Your task to perform on an android device: delete browsing data in the chrome app Image 0: 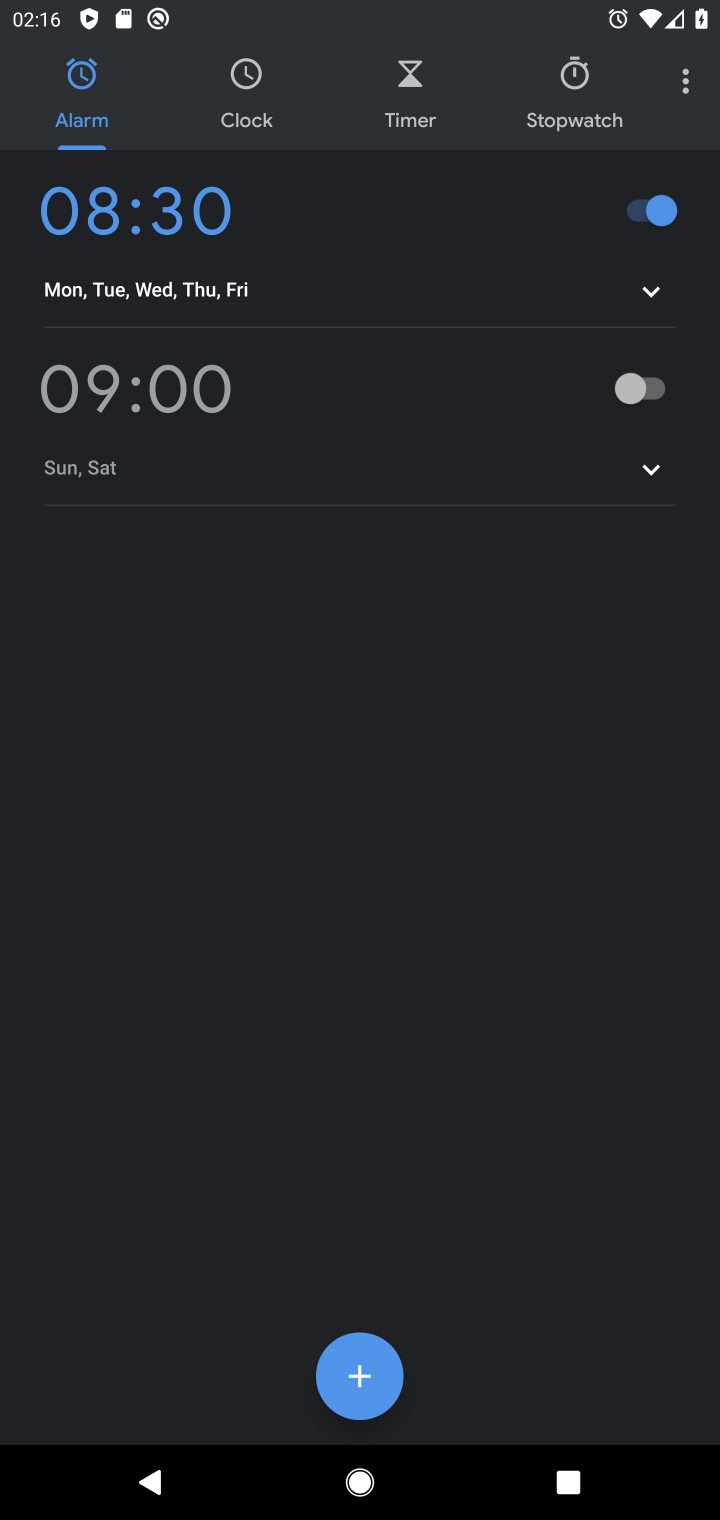
Step 0: press home button
Your task to perform on an android device: delete browsing data in the chrome app Image 1: 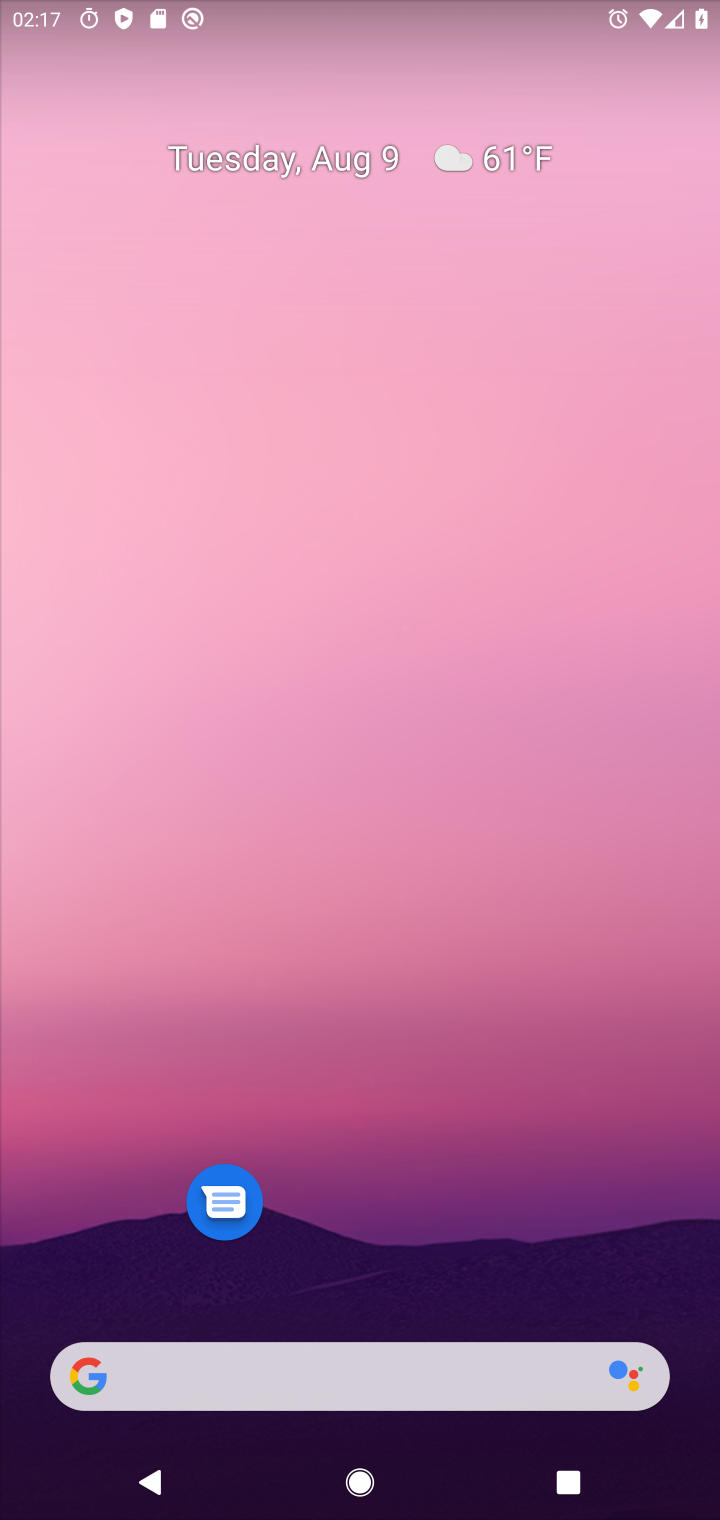
Step 1: drag from (437, 1370) to (474, 300)
Your task to perform on an android device: delete browsing data in the chrome app Image 2: 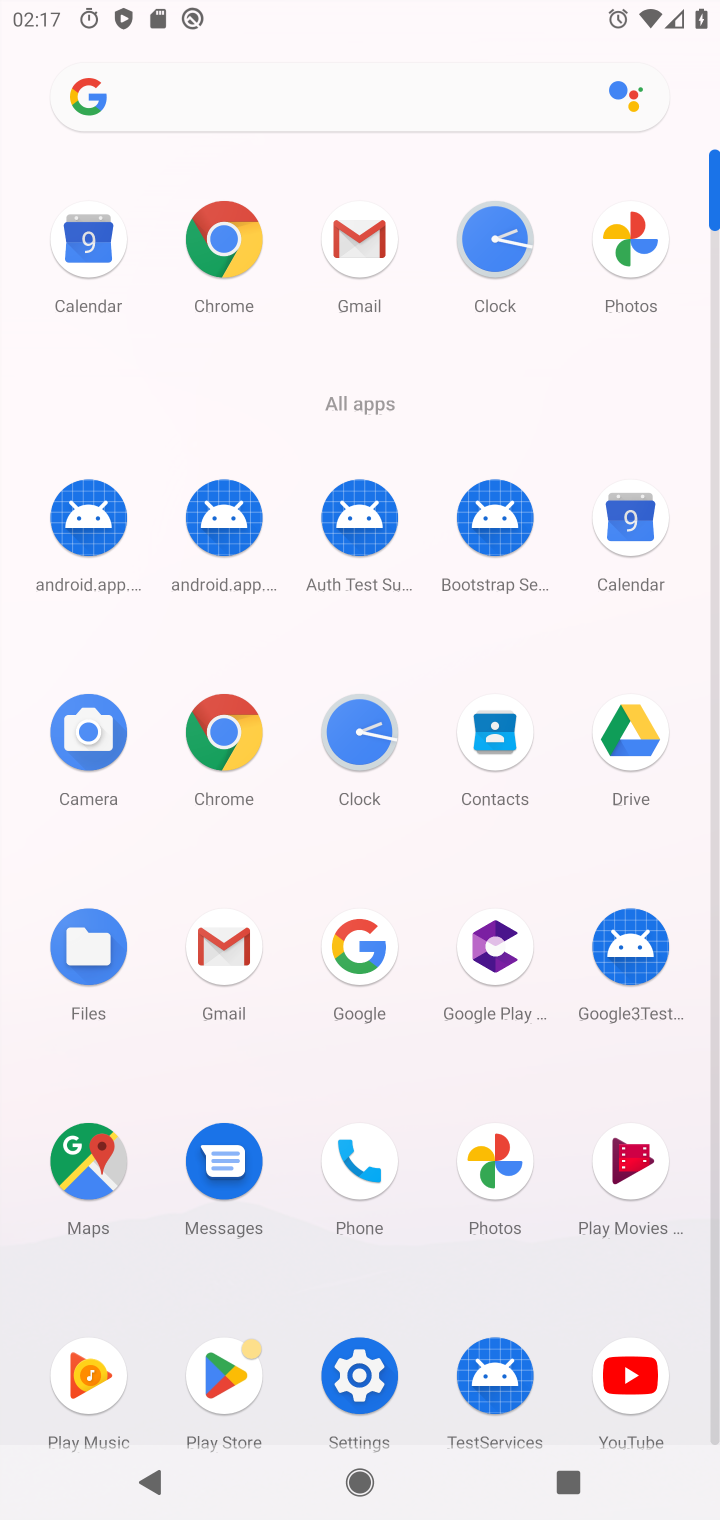
Step 2: click (212, 738)
Your task to perform on an android device: delete browsing data in the chrome app Image 3: 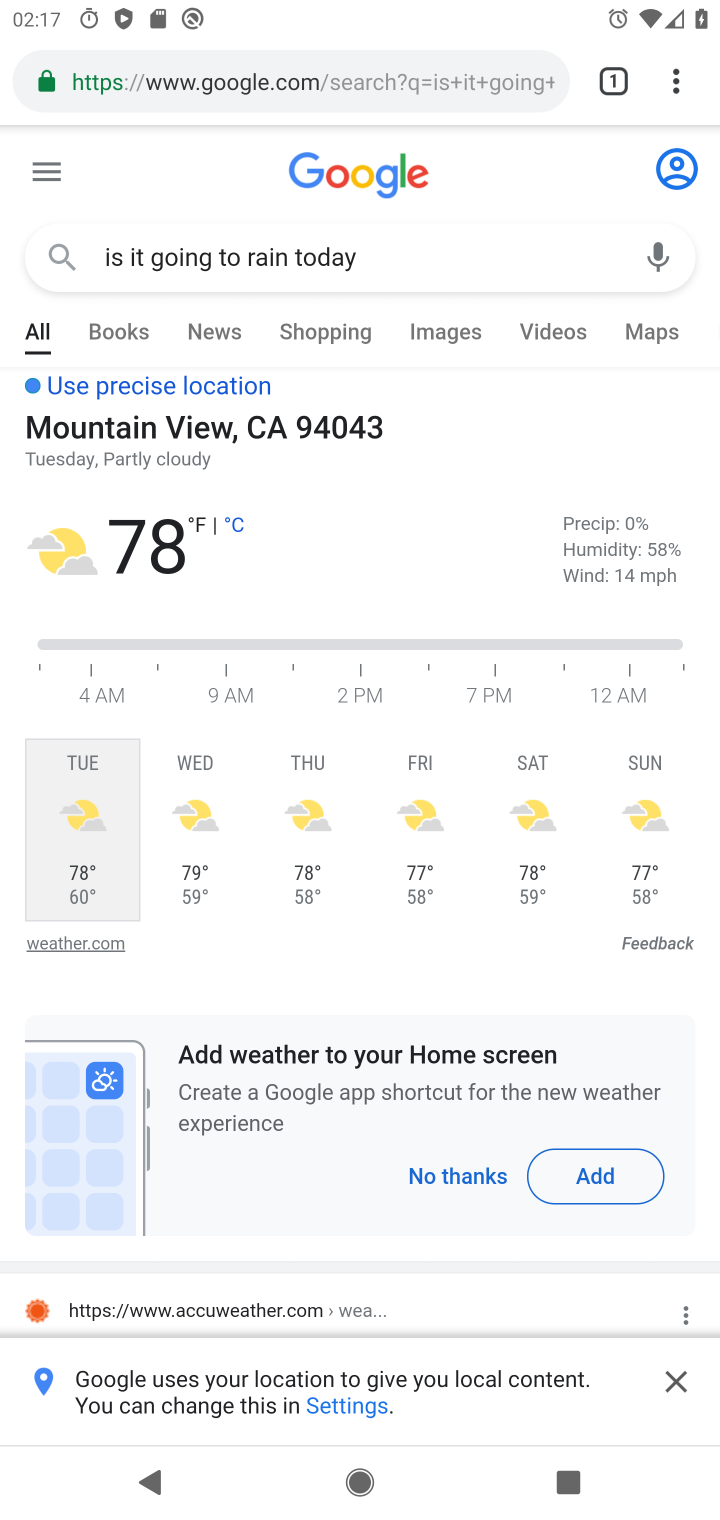
Step 3: click (677, 80)
Your task to perform on an android device: delete browsing data in the chrome app Image 4: 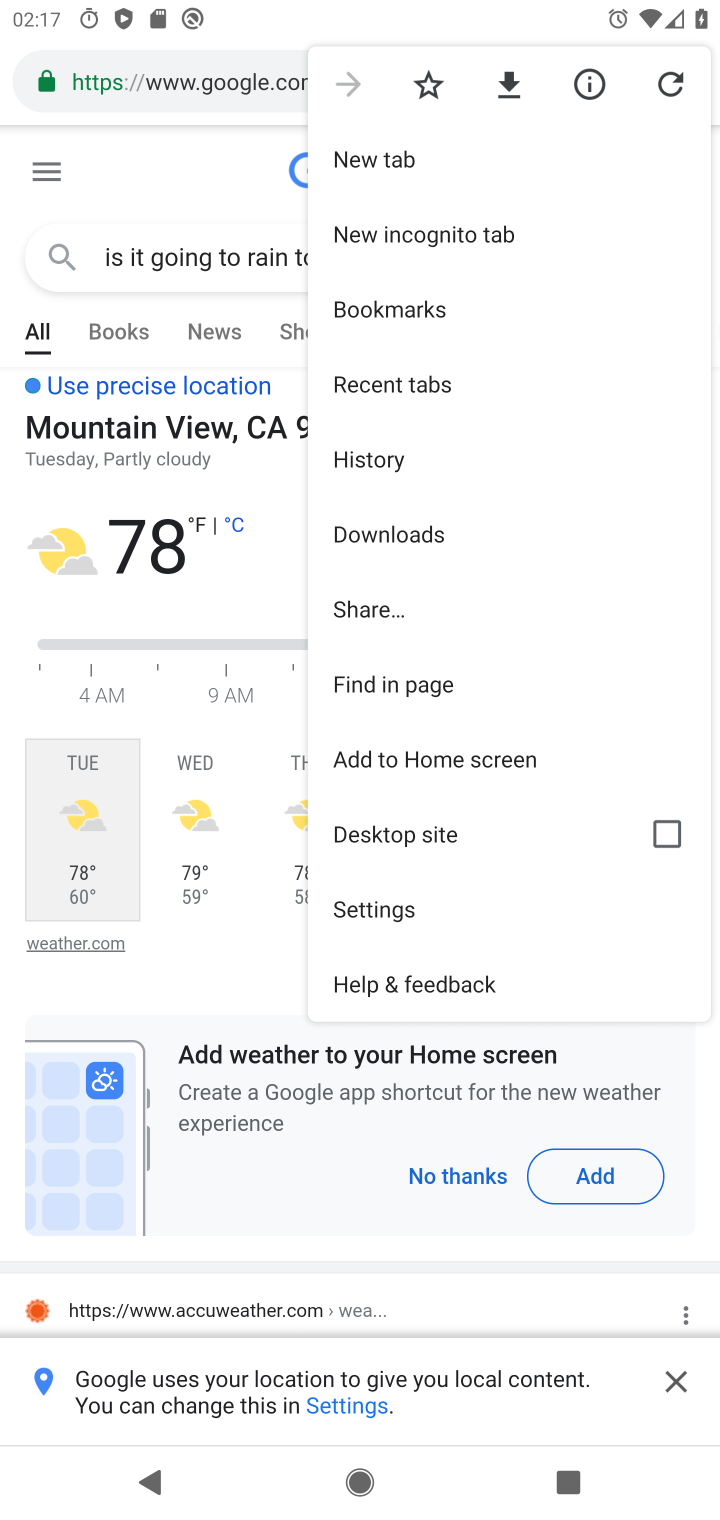
Step 4: click (371, 443)
Your task to perform on an android device: delete browsing data in the chrome app Image 5: 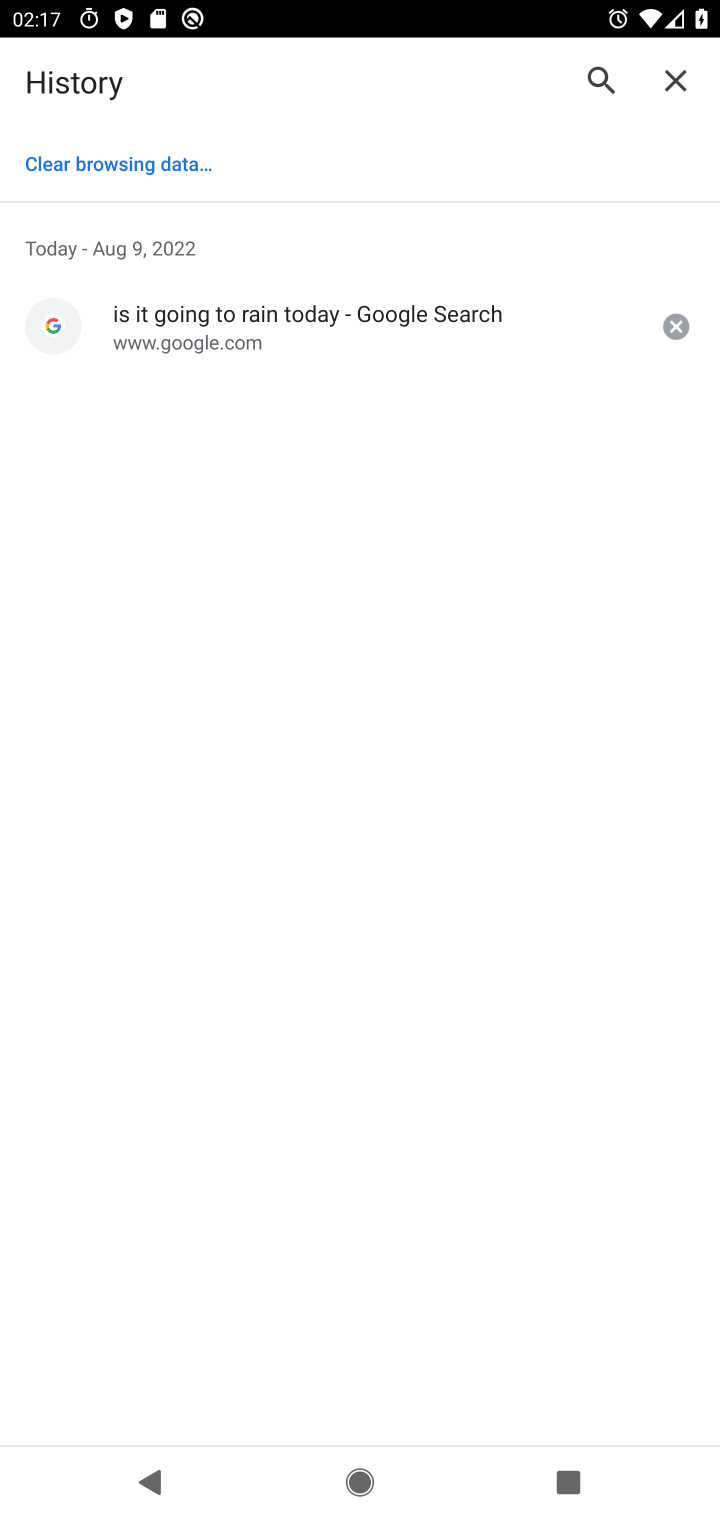
Step 5: click (154, 167)
Your task to perform on an android device: delete browsing data in the chrome app Image 6: 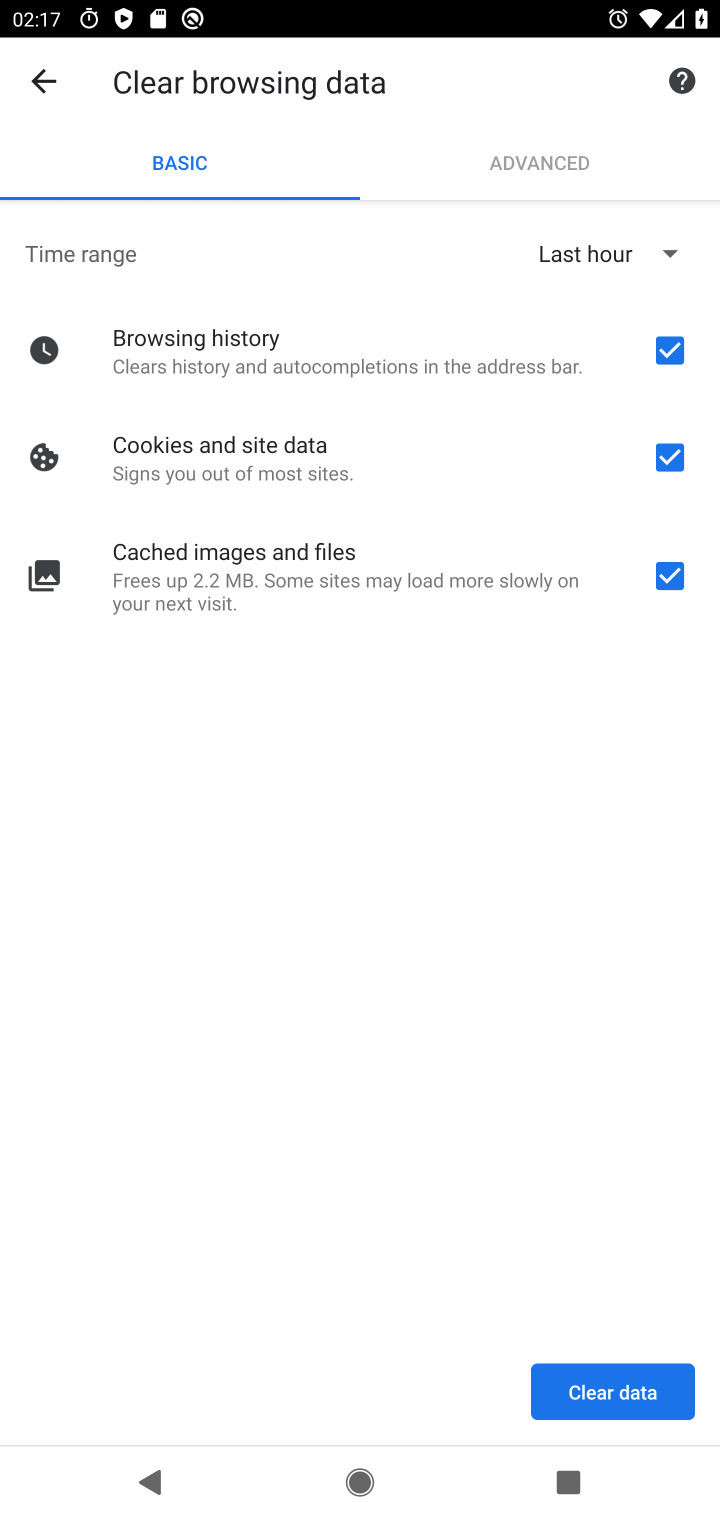
Step 6: click (586, 1390)
Your task to perform on an android device: delete browsing data in the chrome app Image 7: 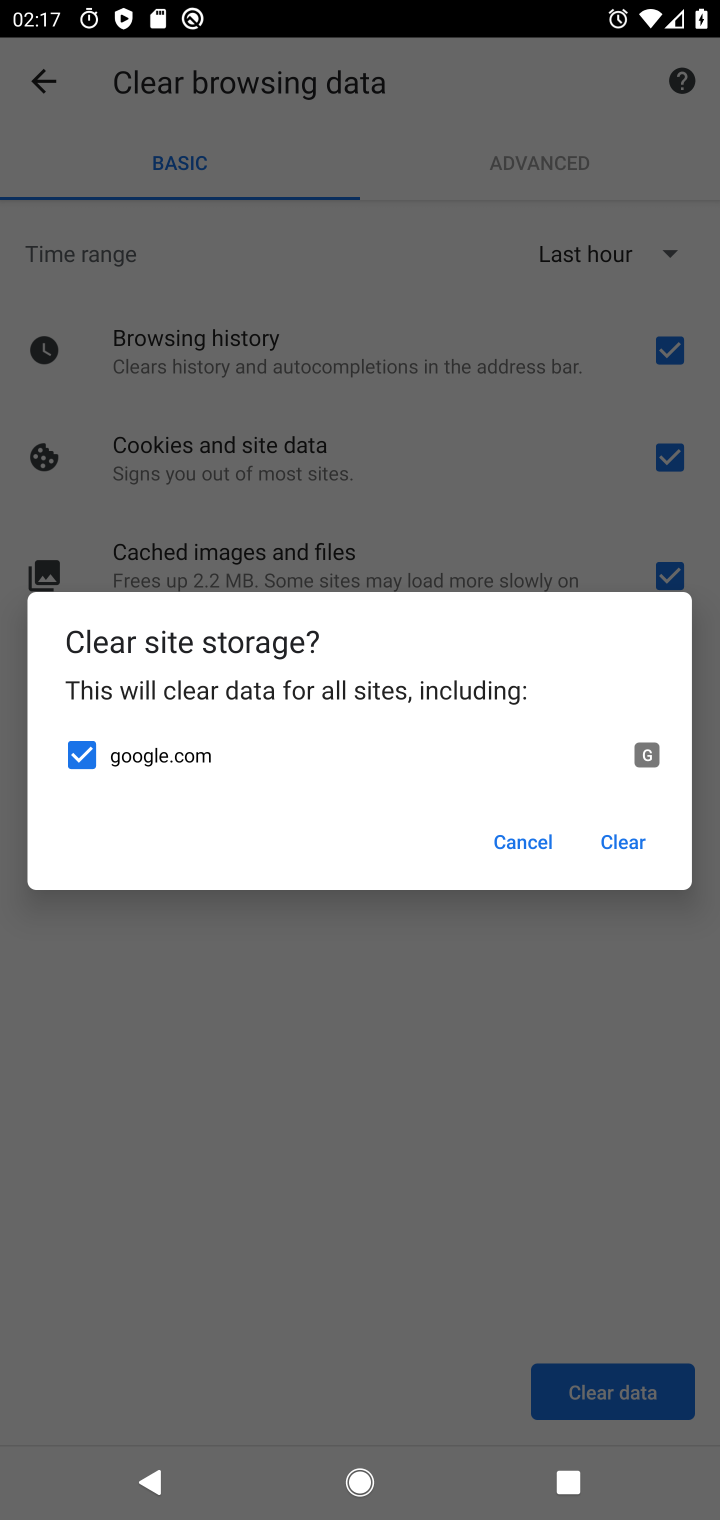
Step 7: click (619, 847)
Your task to perform on an android device: delete browsing data in the chrome app Image 8: 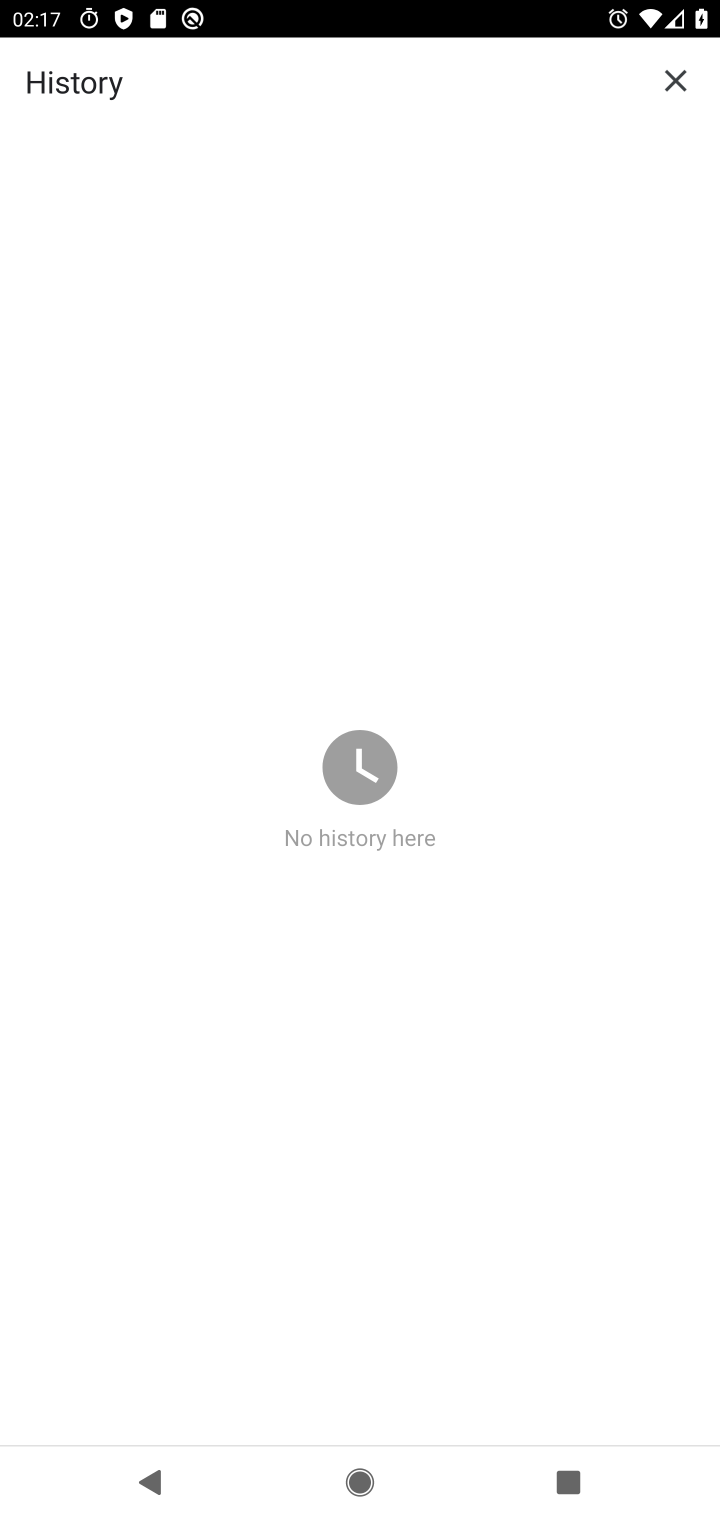
Step 8: task complete